Your task to perform on an android device: Toggle the flashlight Image 0: 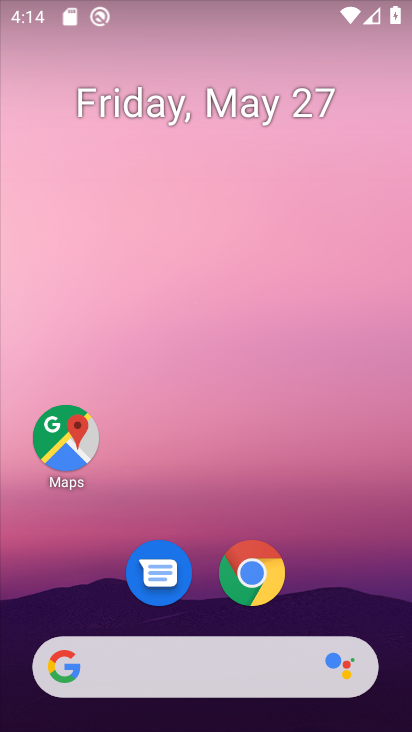
Step 0: drag from (320, 522) to (318, 44)
Your task to perform on an android device: Toggle the flashlight Image 1: 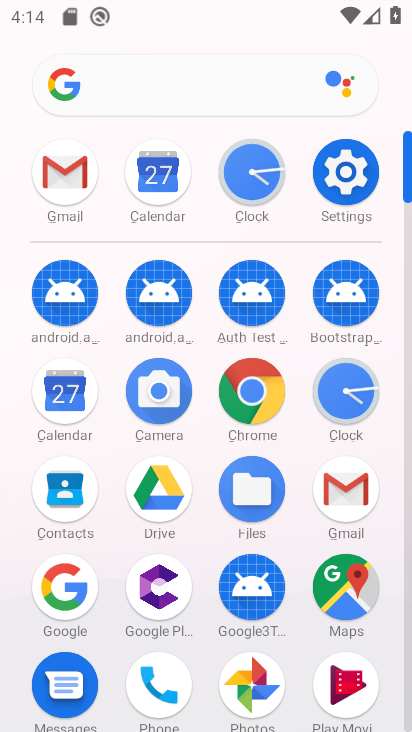
Step 1: click (333, 163)
Your task to perform on an android device: Toggle the flashlight Image 2: 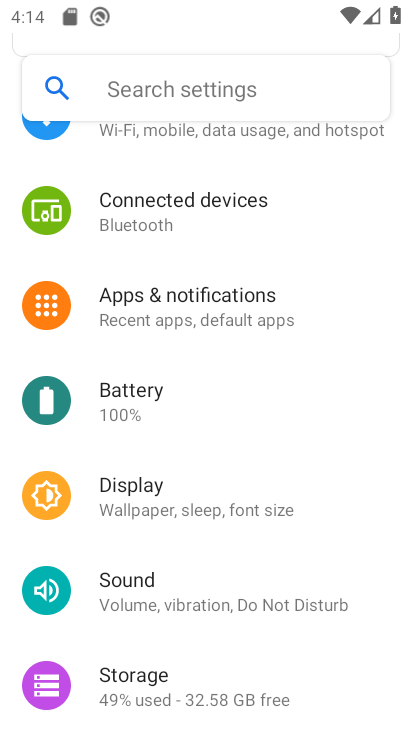
Step 2: drag from (291, 220) to (304, 724)
Your task to perform on an android device: Toggle the flashlight Image 3: 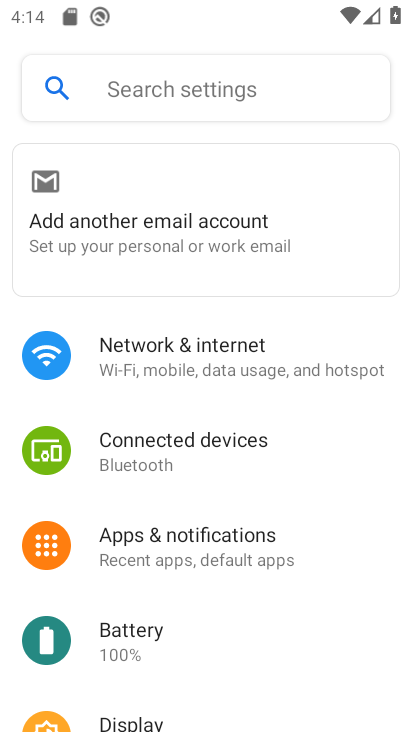
Step 3: click (278, 85)
Your task to perform on an android device: Toggle the flashlight Image 4: 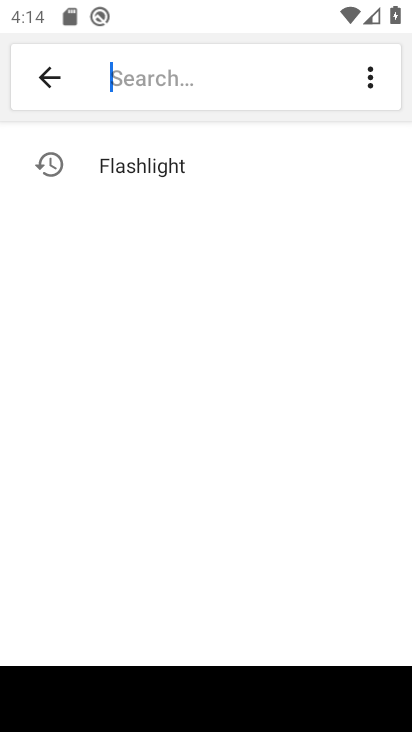
Step 4: click (165, 164)
Your task to perform on an android device: Toggle the flashlight Image 5: 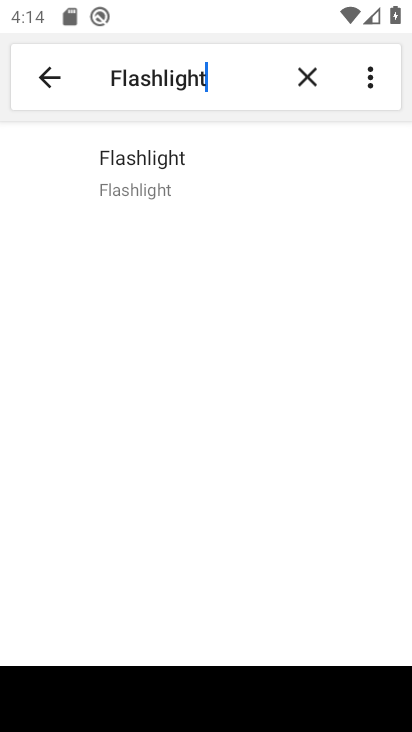
Step 5: click (165, 166)
Your task to perform on an android device: Toggle the flashlight Image 6: 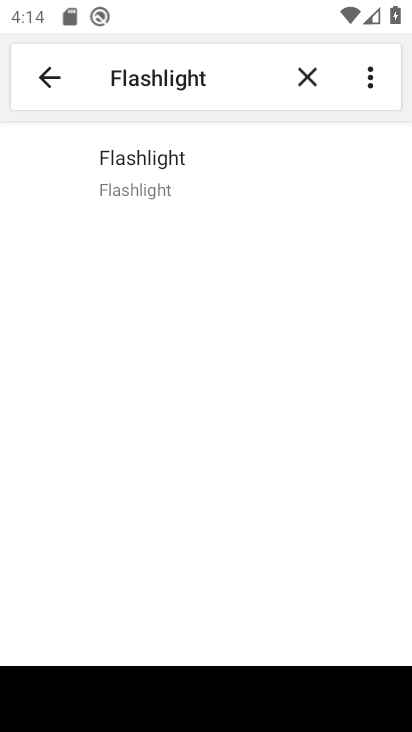
Step 6: click (165, 166)
Your task to perform on an android device: Toggle the flashlight Image 7: 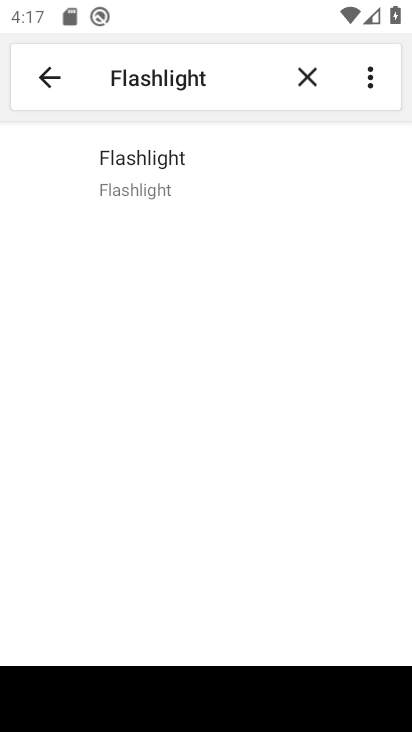
Step 7: task complete